Your task to perform on an android device: View the shopping cart on walmart. Add duracell triple a to the cart on walmart Image 0: 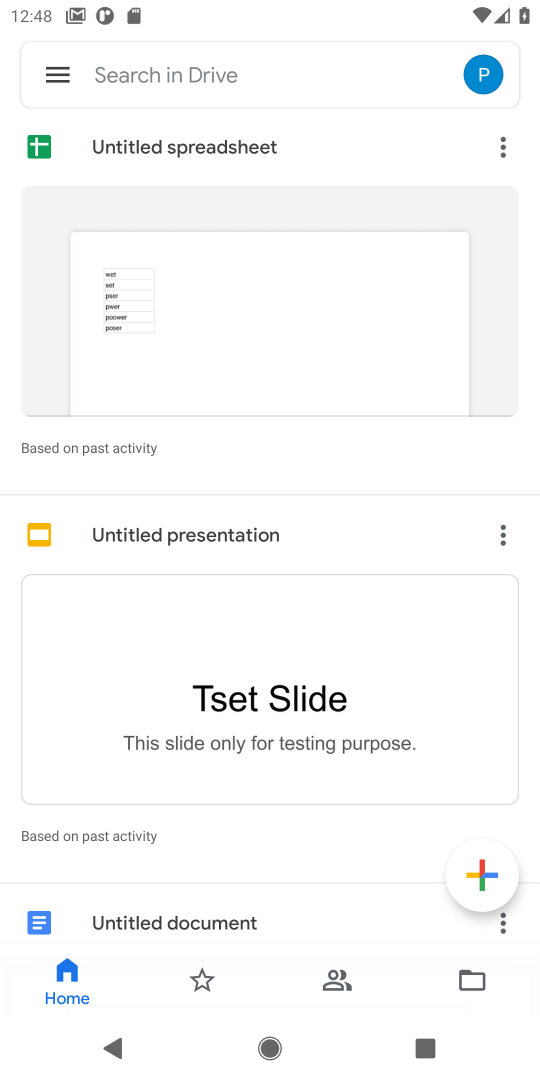
Step 0: press home button
Your task to perform on an android device: View the shopping cart on walmart. Add duracell triple a to the cart on walmart Image 1: 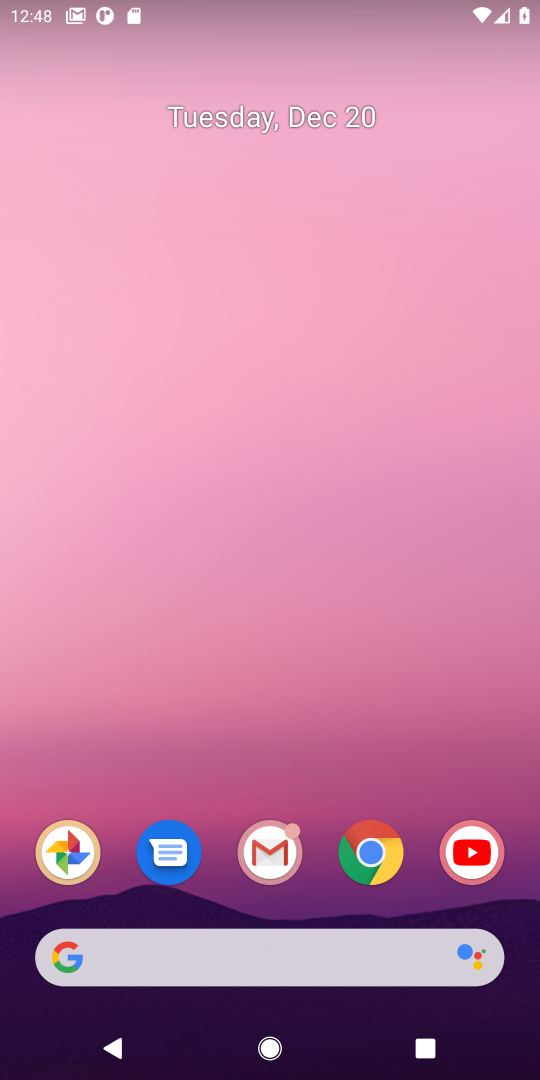
Step 1: click (371, 860)
Your task to perform on an android device: View the shopping cart on walmart. Add duracell triple a to the cart on walmart Image 2: 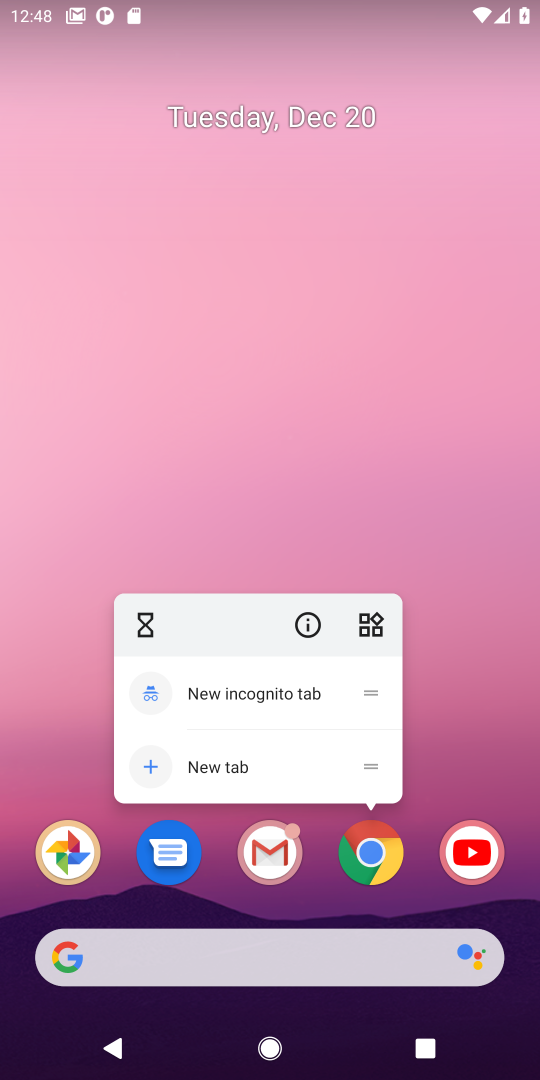
Step 2: click (371, 859)
Your task to perform on an android device: View the shopping cart on walmart. Add duracell triple a to the cart on walmart Image 3: 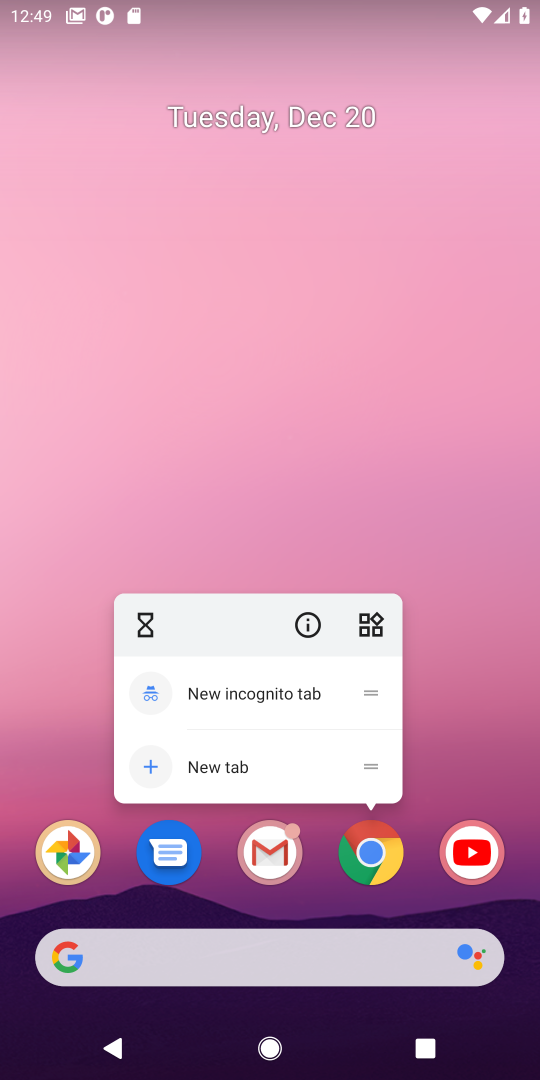
Step 3: click (371, 859)
Your task to perform on an android device: View the shopping cart on walmart. Add duracell triple a to the cart on walmart Image 4: 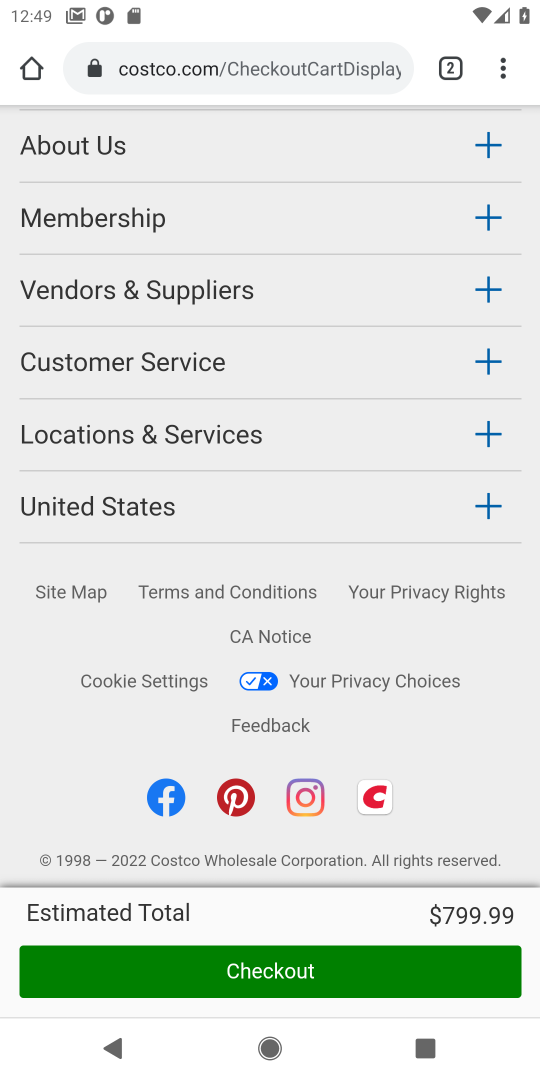
Step 4: click (223, 62)
Your task to perform on an android device: View the shopping cart on walmart. Add duracell triple a to the cart on walmart Image 5: 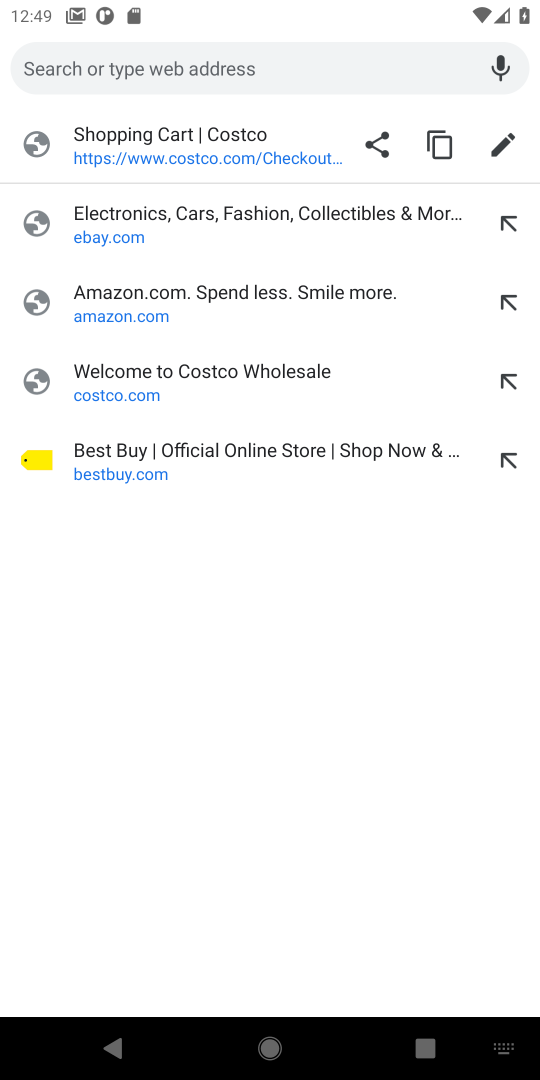
Step 5: type "walmart.com"
Your task to perform on an android device: View the shopping cart on walmart. Add duracell triple a to the cart on walmart Image 6: 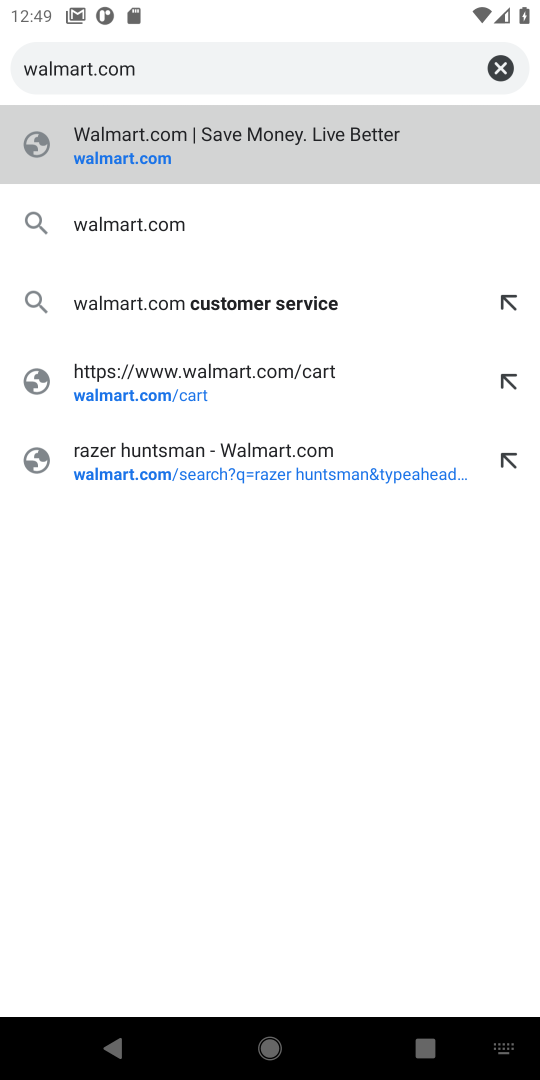
Step 6: click (115, 157)
Your task to perform on an android device: View the shopping cart on walmart. Add duracell triple a to the cart on walmart Image 7: 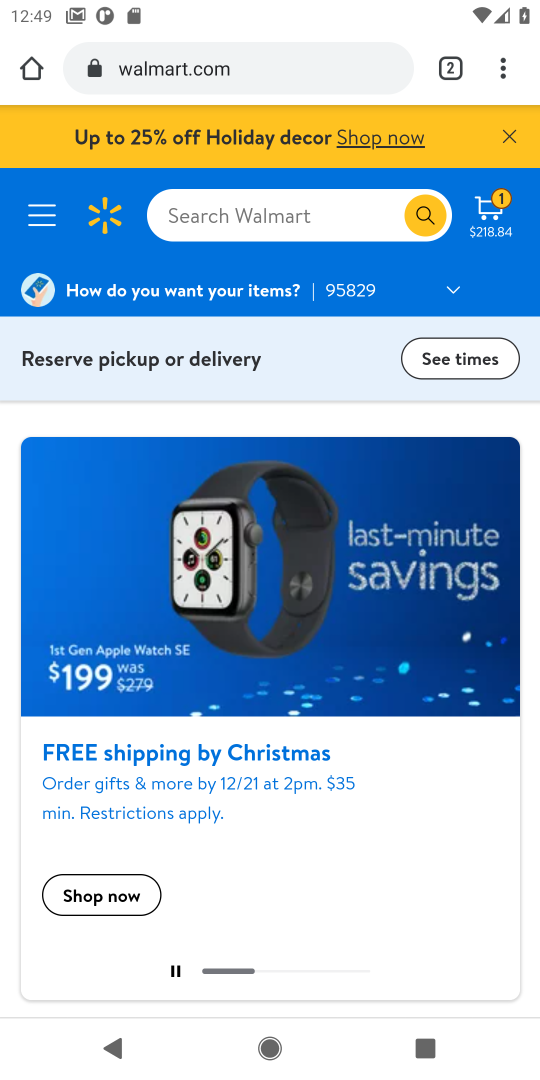
Step 7: click (494, 214)
Your task to perform on an android device: View the shopping cart on walmart. Add duracell triple a to the cart on walmart Image 8: 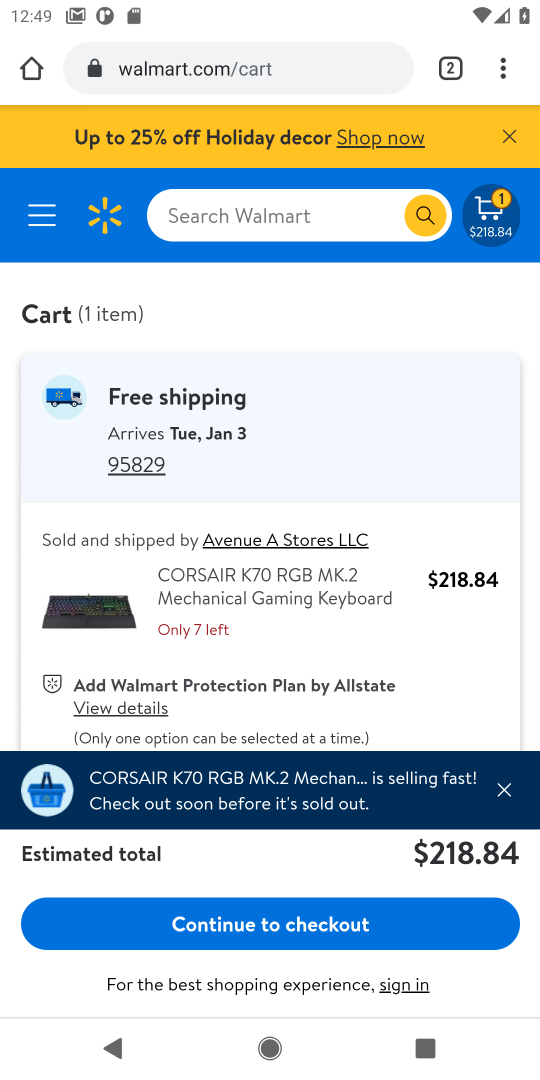
Step 8: click (208, 209)
Your task to perform on an android device: View the shopping cart on walmart. Add duracell triple a to the cart on walmart Image 9: 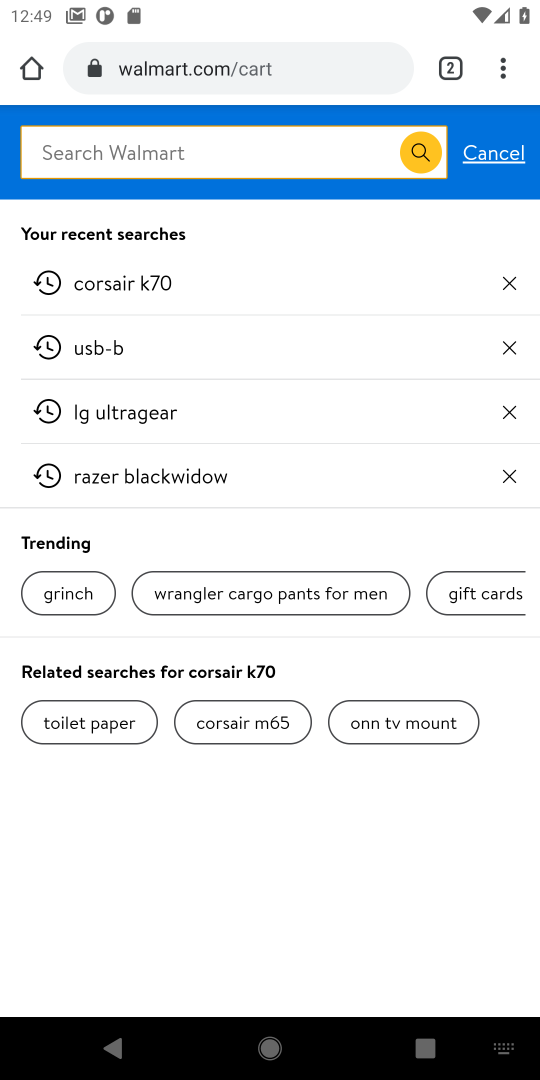
Step 9: type " duracell triple a"
Your task to perform on an android device: View the shopping cart on walmart. Add duracell triple a to the cart on walmart Image 10: 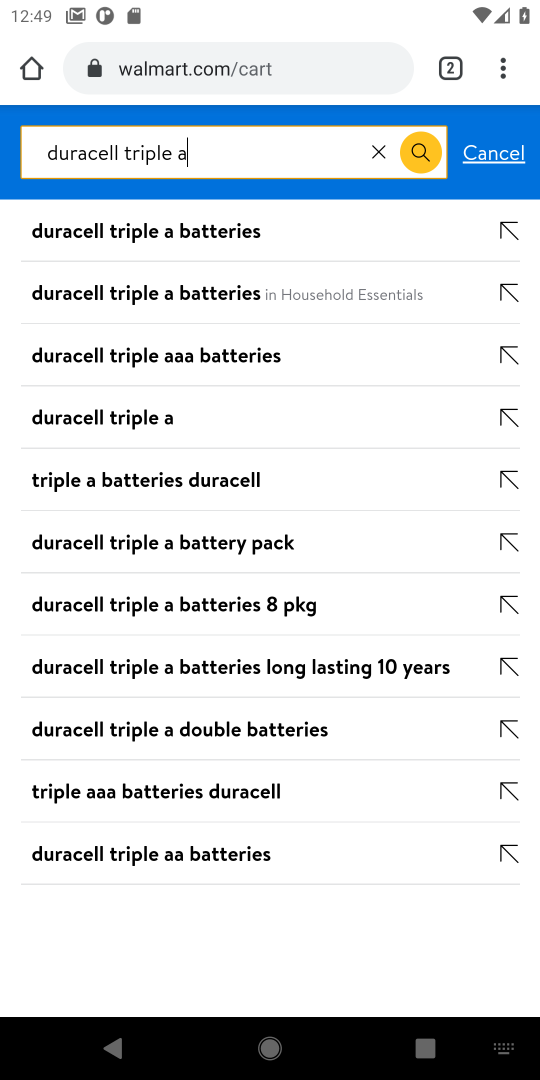
Step 10: click (206, 239)
Your task to perform on an android device: View the shopping cart on walmart. Add duracell triple a to the cart on walmart Image 11: 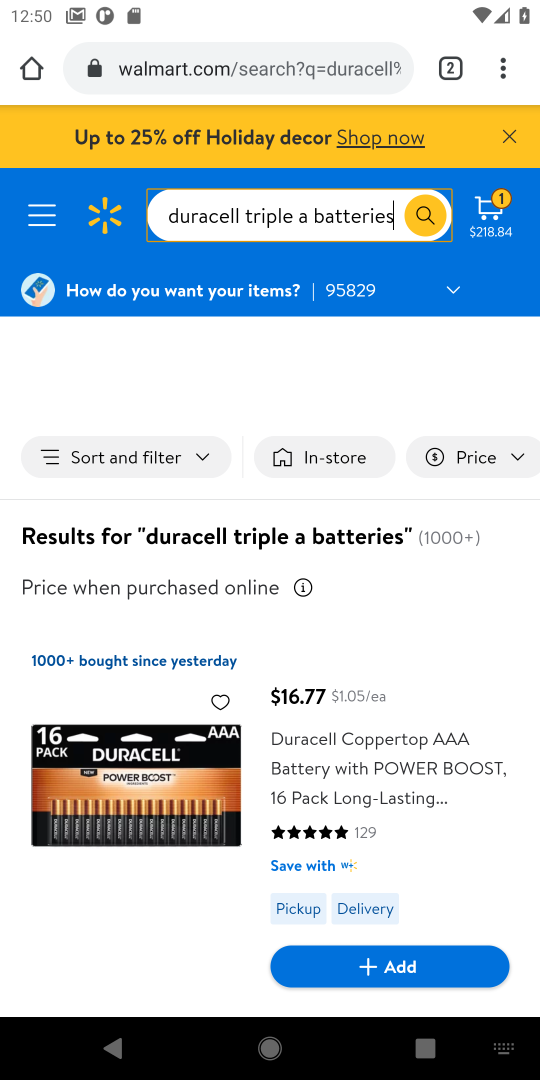
Step 11: drag from (260, 570) to (282, 312)
Your task to perform on an android device: View the shopping cart on walmart. Add duracell triple a to the cart on walmart Image 12: 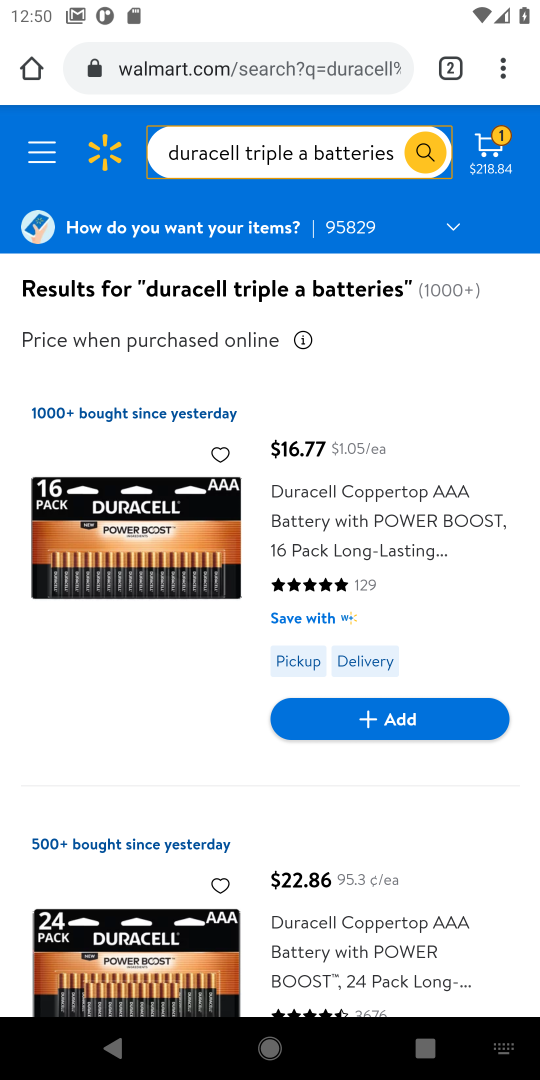
Step 12: click (395, 714)
Your task to perform on an android device: View the shopping cart on walmart. Add duracell triple a to the cart on walmart Image 13: 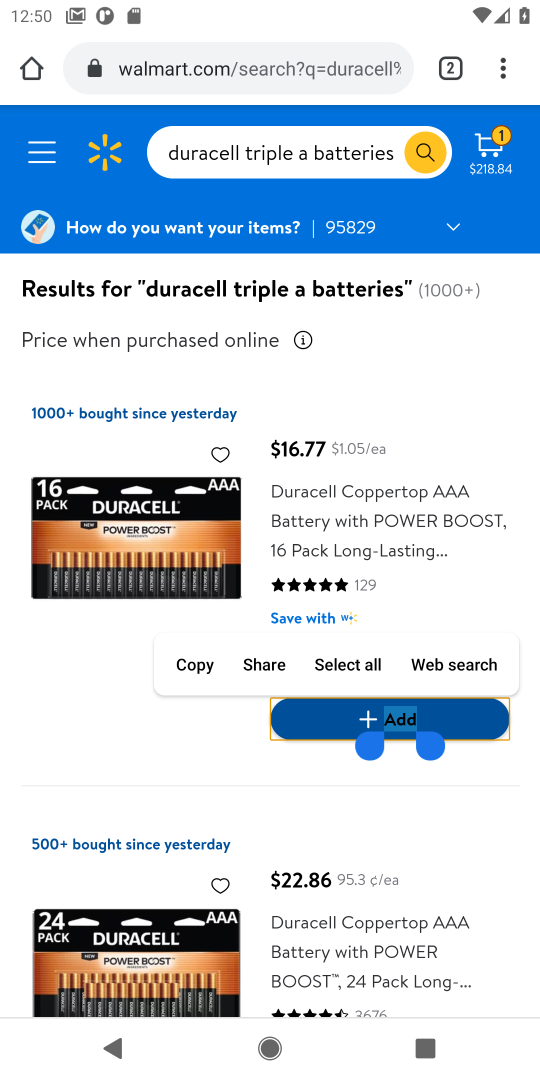
Step 13: click (369, 723)
Your task to perform on an android device: View the shopping cart on walmart. Add duracell triple a to the cart on walmart Image 14: 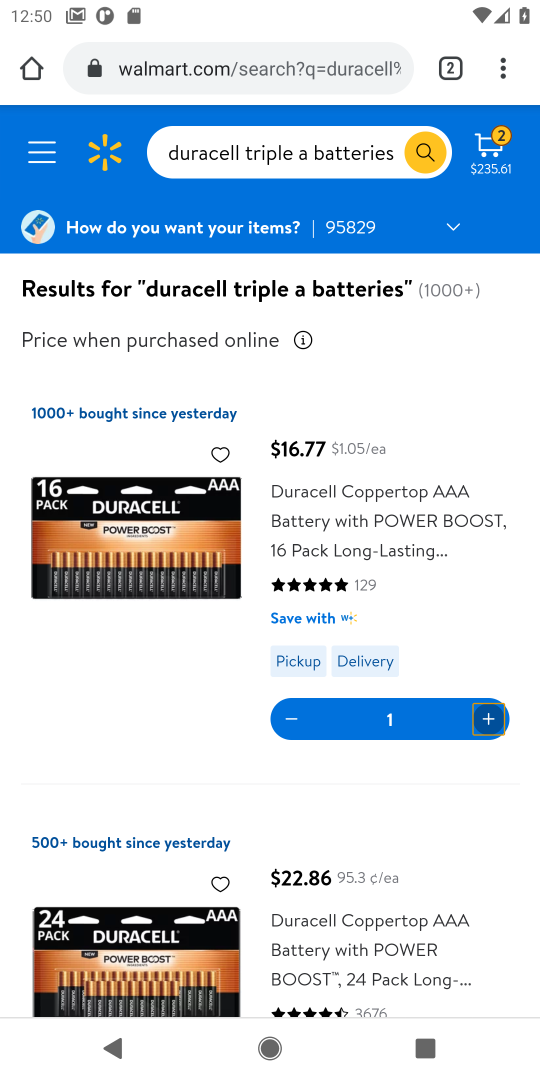
Step 14: task complete